Your task to perform on an android device: open a new tab in the chrome app Image 0: 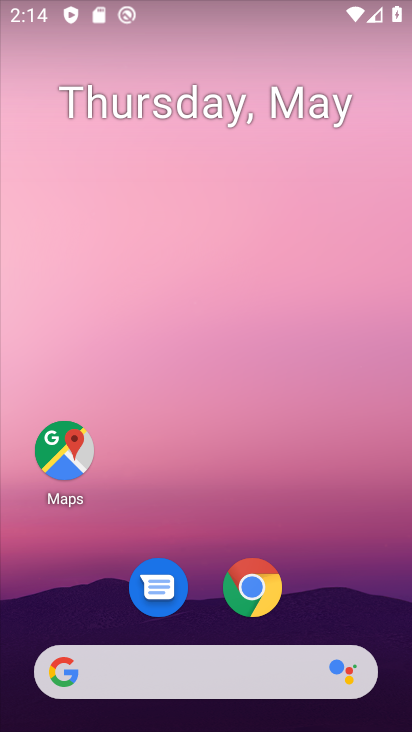
Step 0: click (256, 593)
Your task to perform on an android device: open a new tab in the chrome app Image 1: 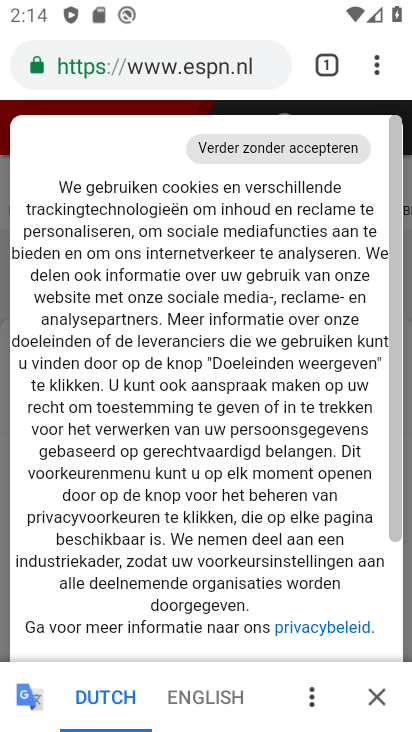
Step 1: task complete